Your task to perform on an android device: Open Youtube and go to the subscriptions tab Image 0: 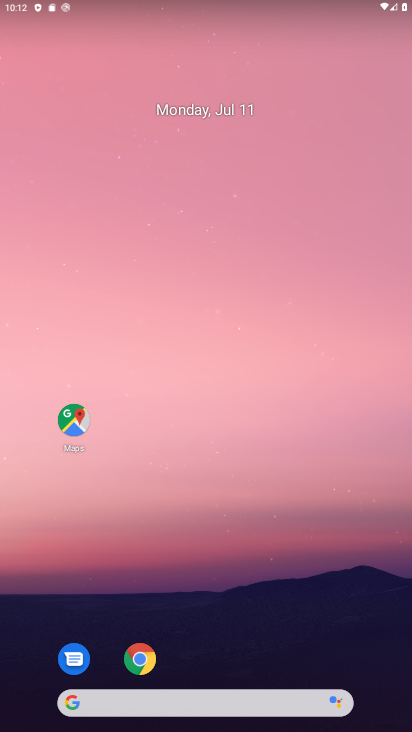
Step 0: drag from (274, 673) to (307, 7)
Your task to perform on an android device: Open Youtube and go to the subscriptions tab Image 1: 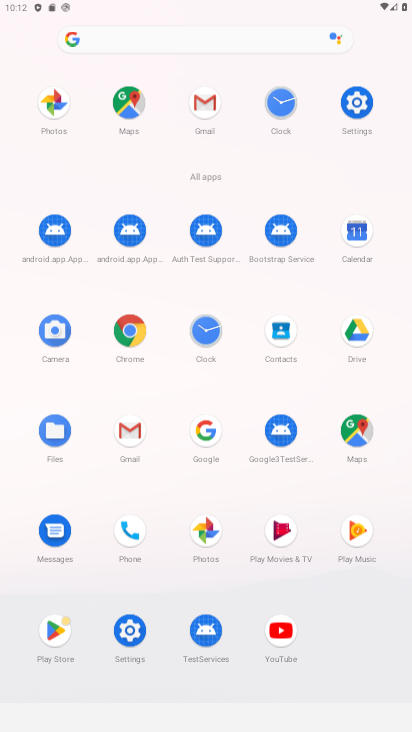
Step 1: drag from (296, 647) to (358, 207)
Your task to perform on an android device: Open Youtube and go to the subscriptions tab Image 2: 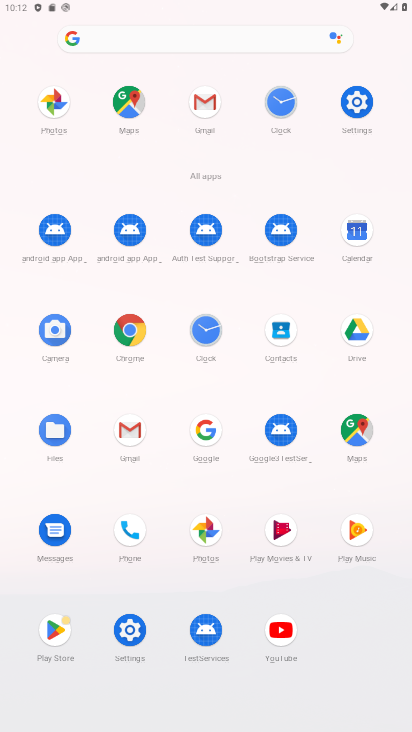
Step 2: click (283, 628)
Your task to perform on an android device: Open Youtube and go to the subscriptions tab Image 3: 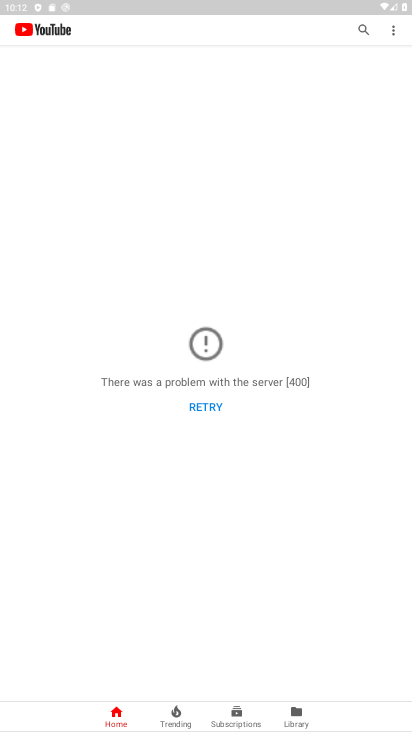
Step 3: click (251, 718)
Your task to perform on an android device: Open Youtube and go to the subscriptions tab Image 4: 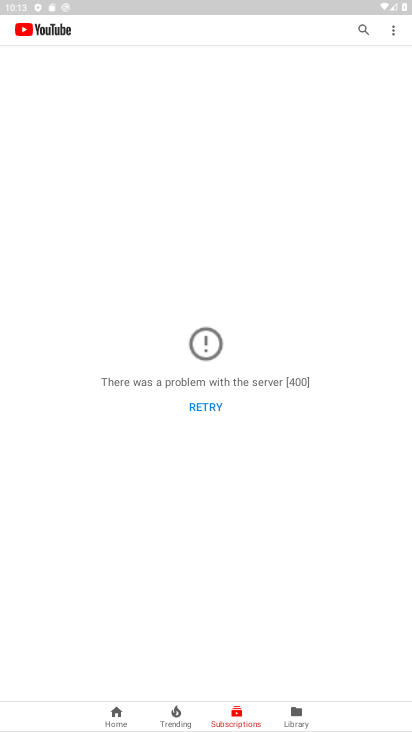
Step 4: task complete